Your task to perform on an android device: Clear all items from cart on amazon. Add "razer deathadder" to the cart on amazon Image 0: 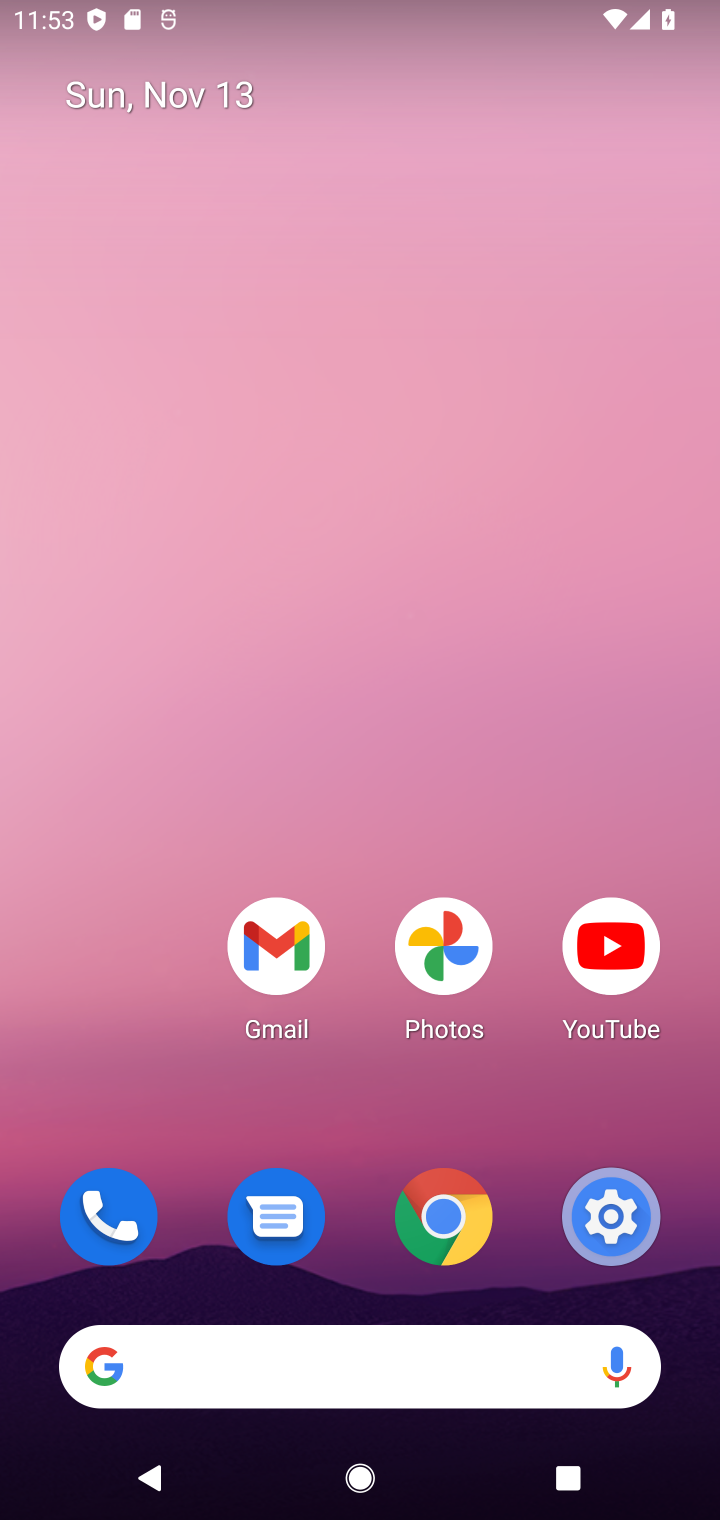
Step 0: click (450, 1244)
Your task to perform on an android device: Clear all items from cart on amazon. Add "razer deathadder" to the cart on amazon Image 1: 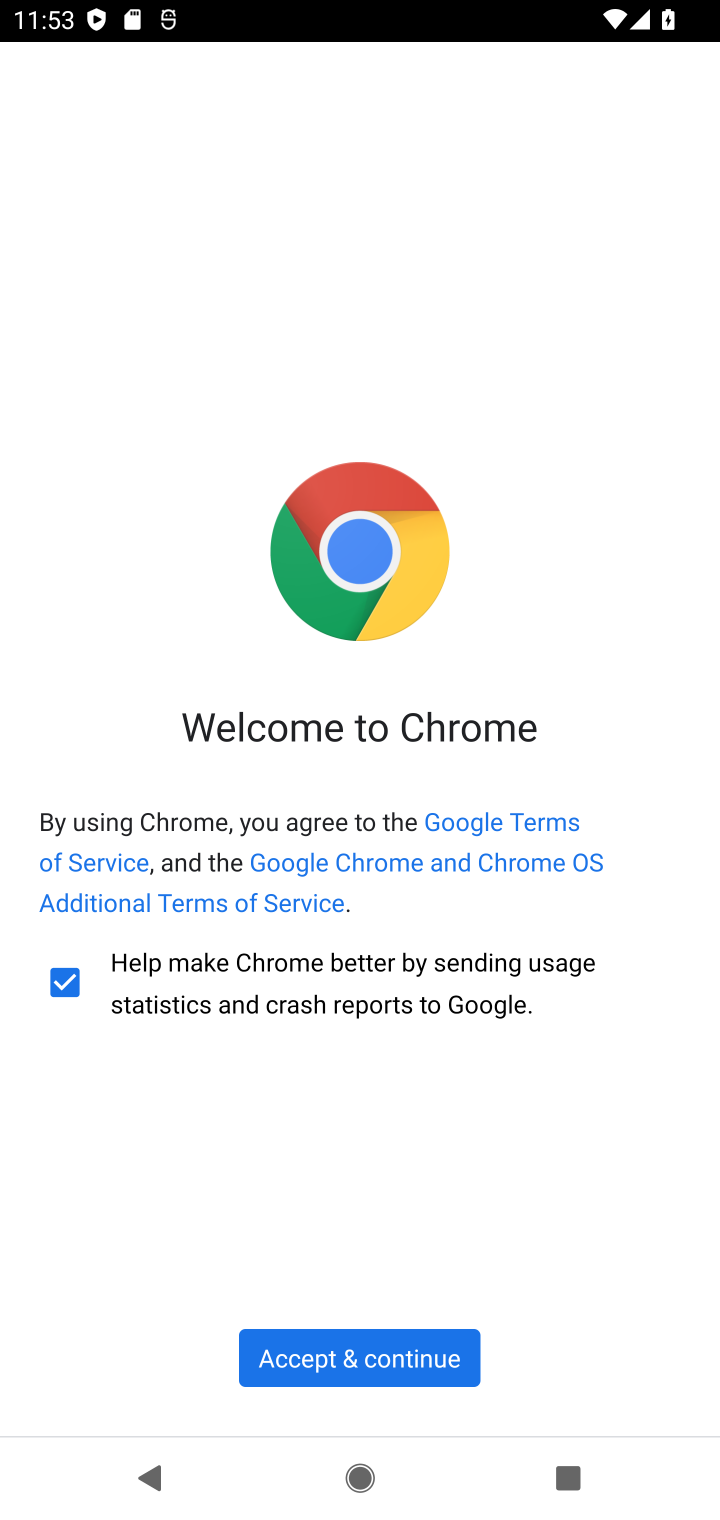
Step 1: click (373, 1356)
Your task to perform on an android device: Clear all items from cart on amazon. Add "razer deathadder" to the cart on amazon Image 2: 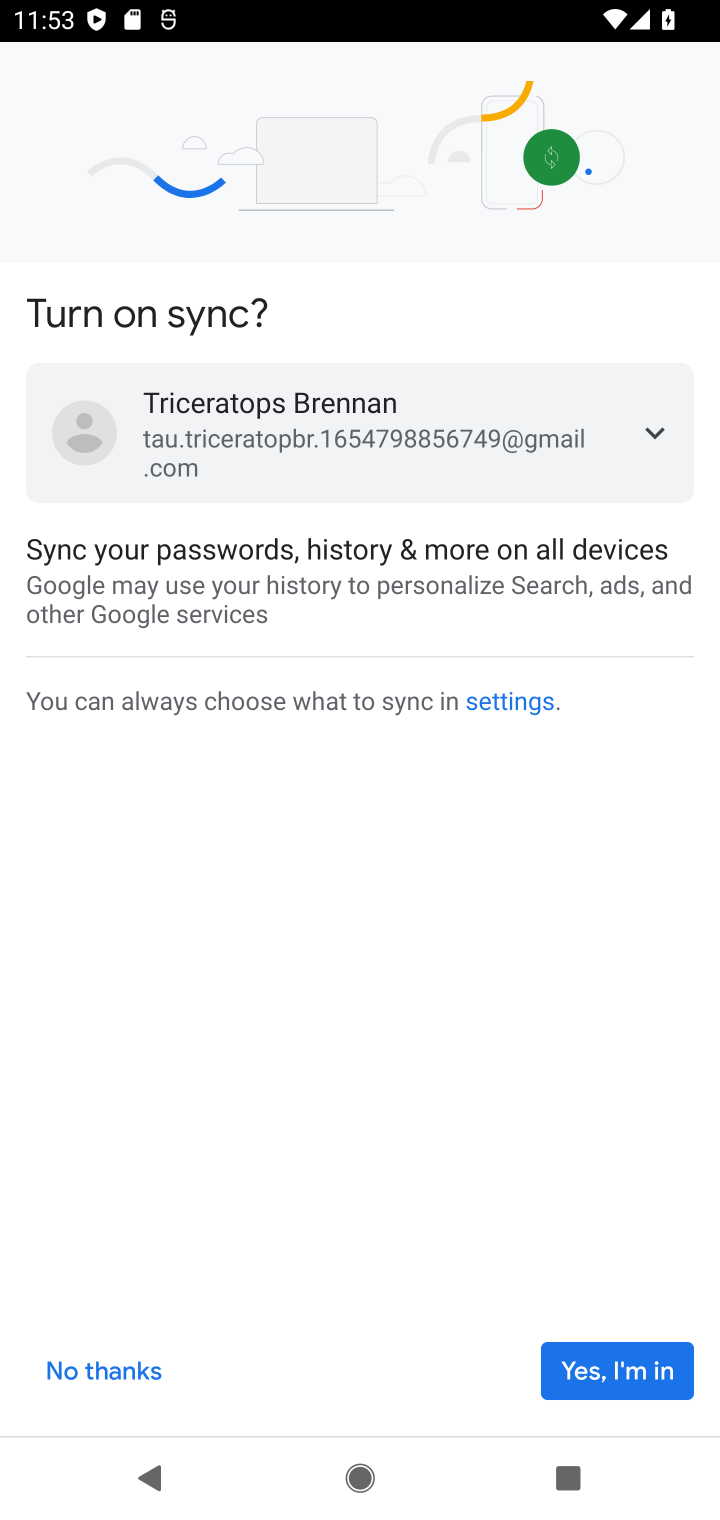
Step 2: click (609, 1361)
Your task to perform on an android device: Clear all items from cart on amazon. Add "razer deathadder" to the cart on amazon Image 3: 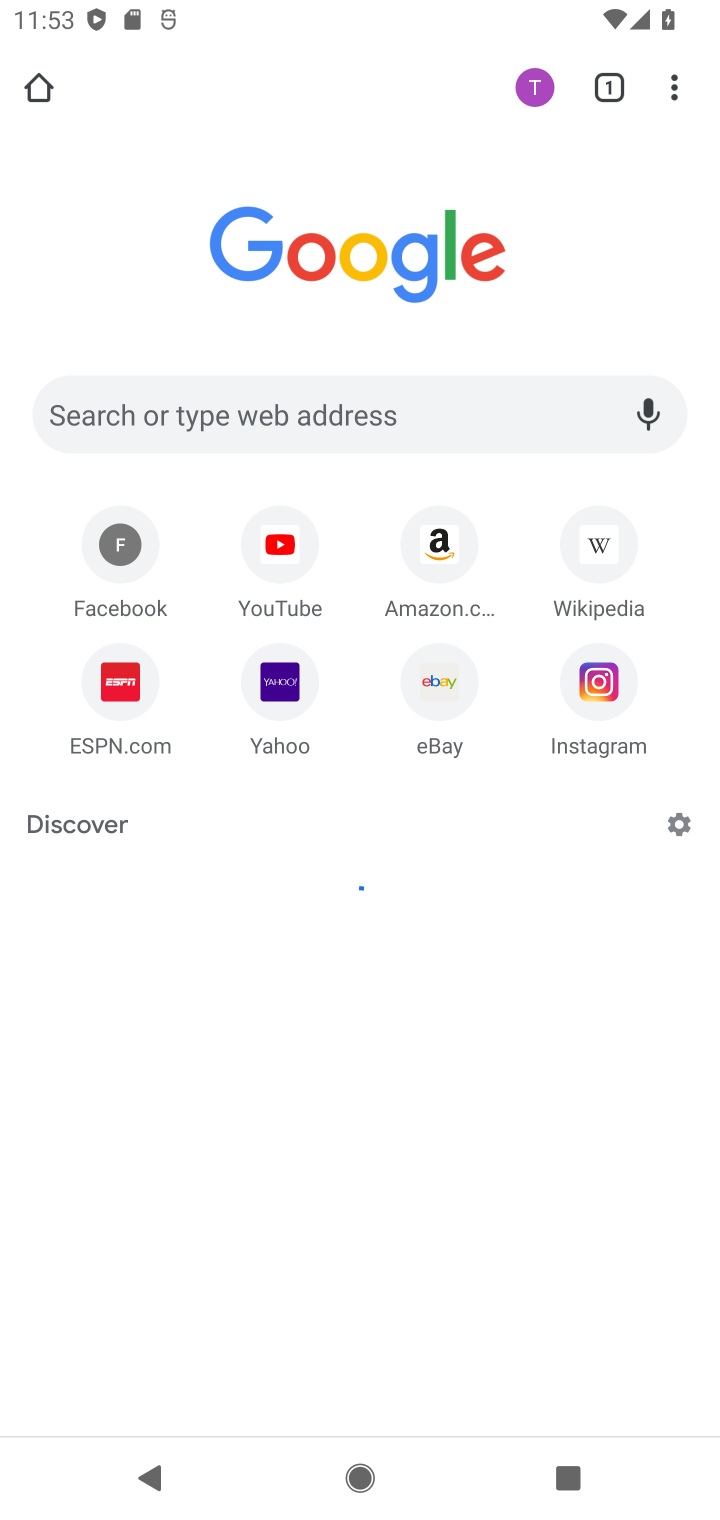
Step 3: click (444, 541)
Your task to perform on an android device: Clear all items from cart on amazon. Add "razer deathadder" to the cart on amazon Image 4: 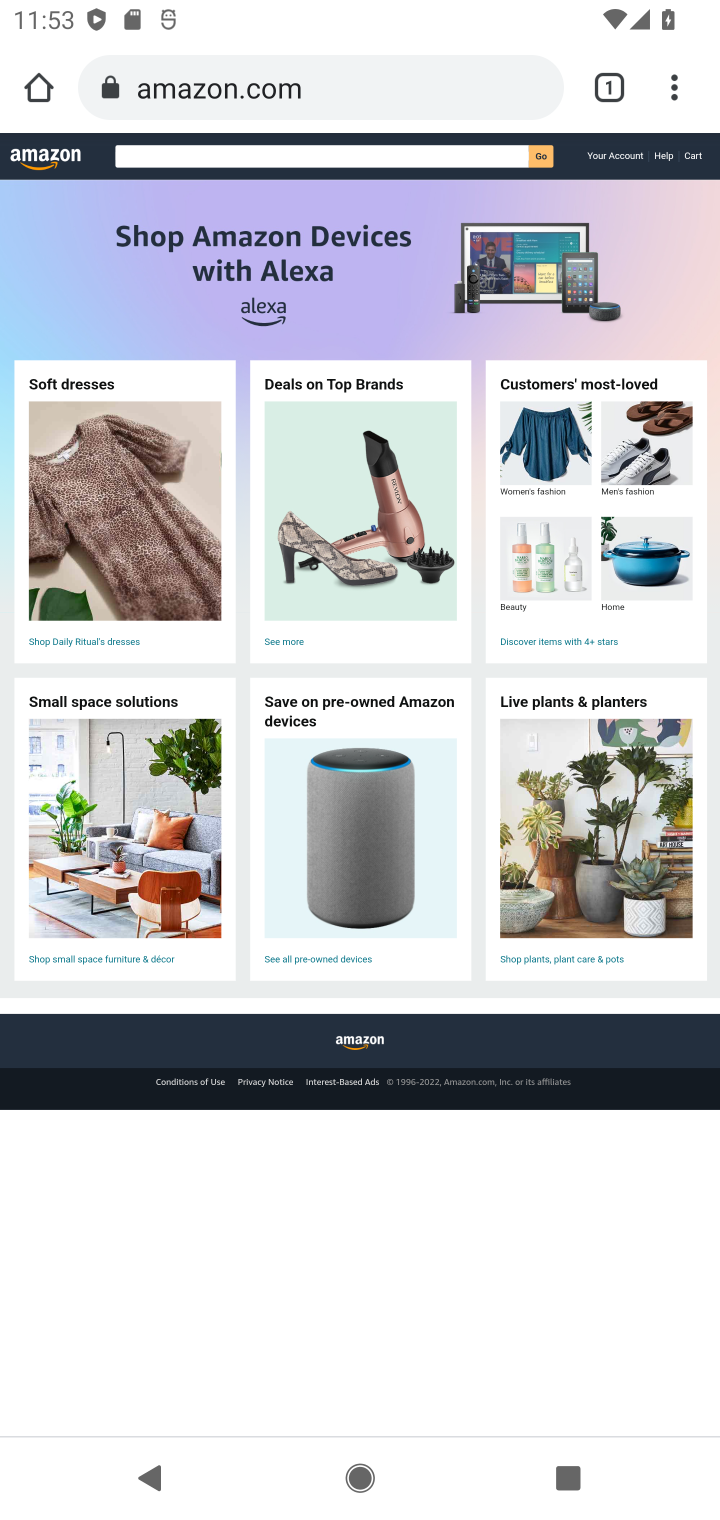
Step 4: drag from (564, 1383) to (0, 1225)
Your task to perform on an android device: Clear all items from cart on amazon. Add "razer deathadder" to the cart on amazon Image 5: 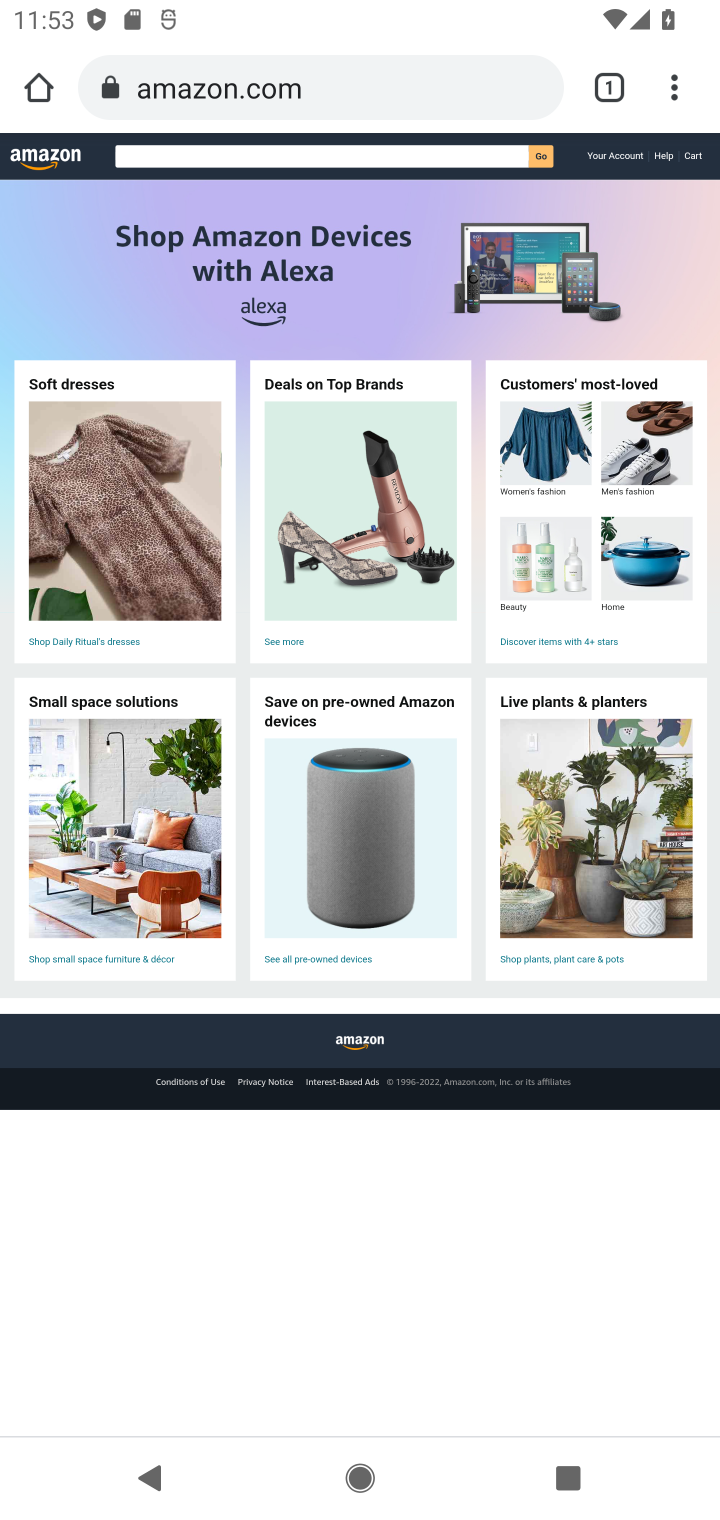
Step 5: click (609, 82)
Your task to perform on an android device: Clear all items from cart on amazon. Add "razer deathadder" to the cart on amazon Image 6: 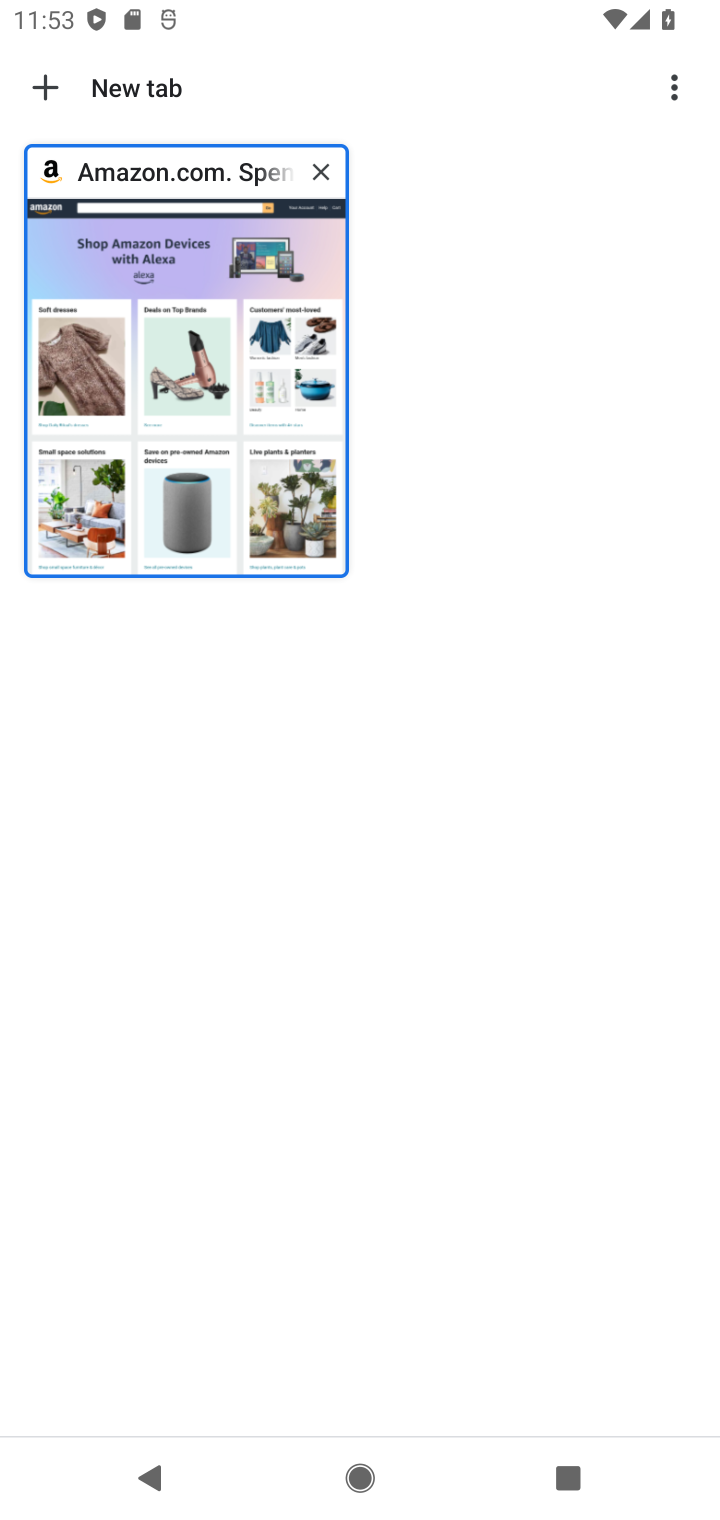
Step 6: click (320, 163)
Your task to perform on an android device: Clear all items from cart on amazon. Add "razer deathadder" to the cart on amazon Image 7: 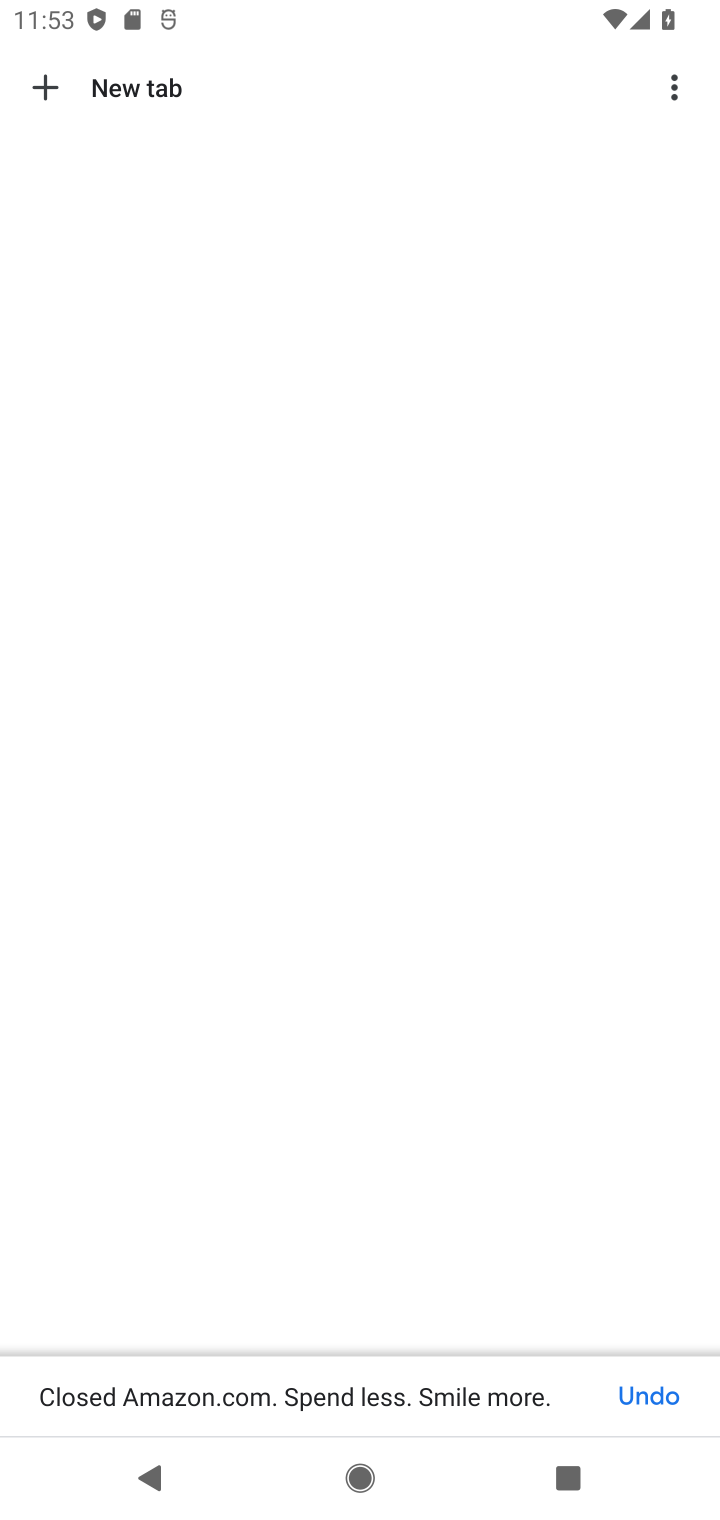
Step 7: click (43, 83)
Your task to perform on an android device: Clear all items from cart on amazon. Add "razer deathadder" to the cart on amazon Image 8: 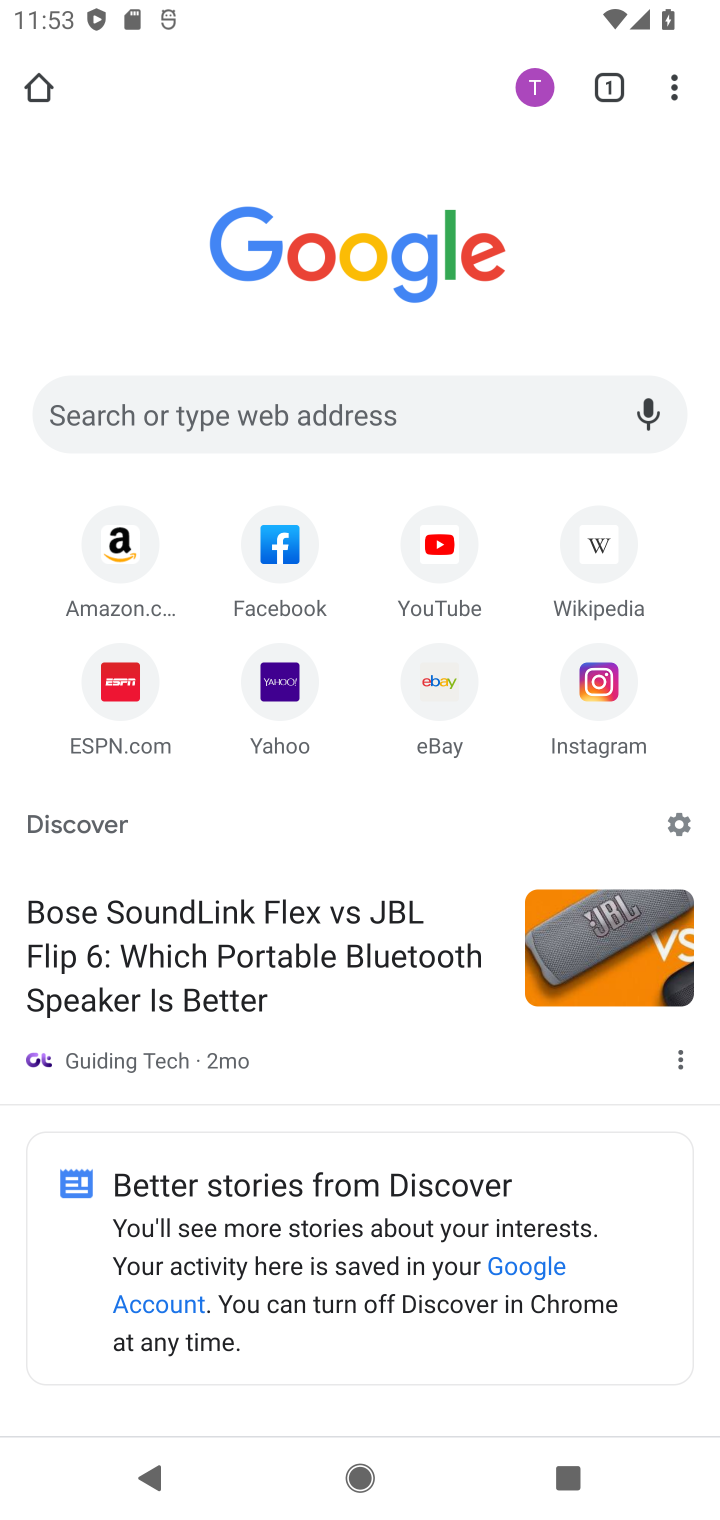
Step 8: click (357, 410)
Your task to perform on an android device: Clear all items from cart on amazon. Add "razer deathadder" to the cart on amazon Image 9: 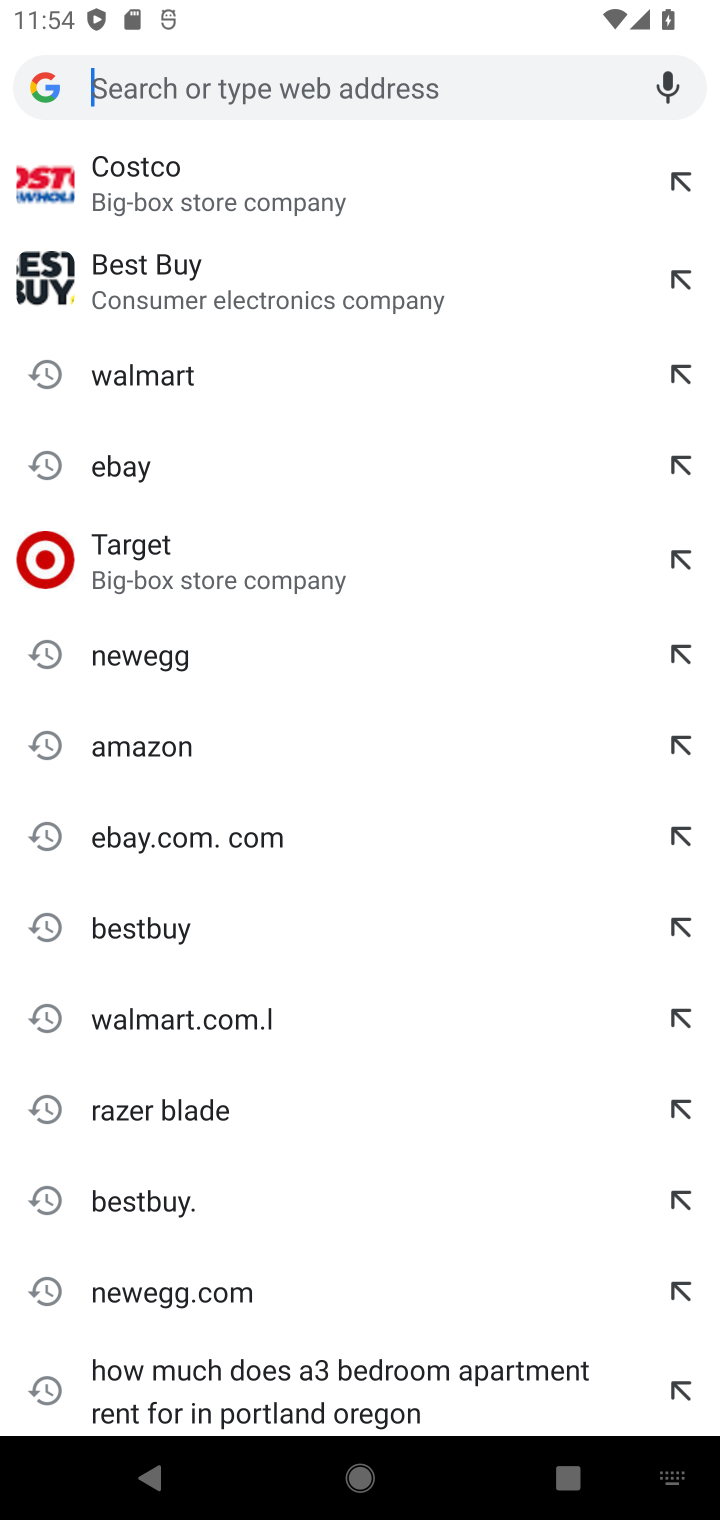
Step 9: click (147, 742)
Your task to perform on an android device: Clear all items from cart on amazon. Add "razer deathadder" to the cart on amazon Image 10: 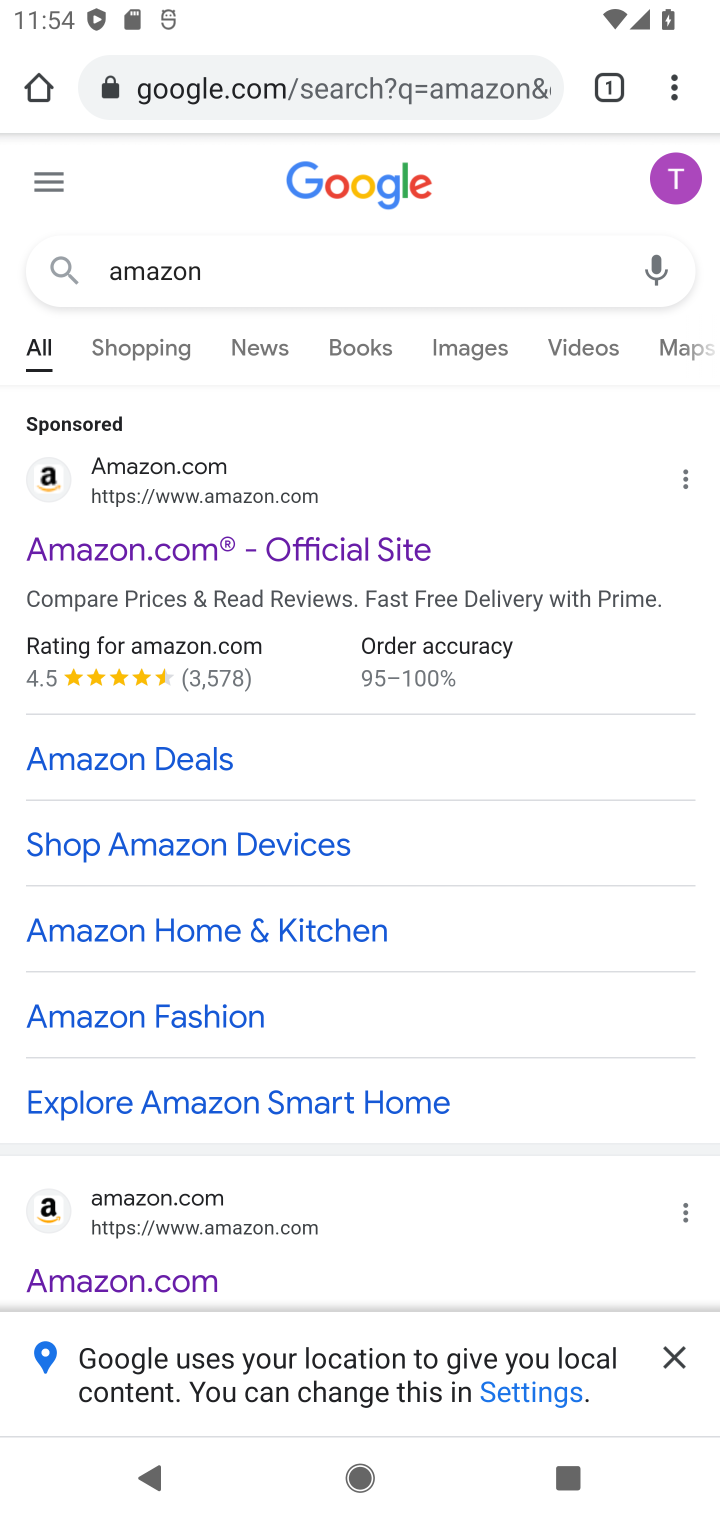
Step 10: click (677, 1351)
Your task to perform on an android device: Clear all items from cart on amazon. Add "razer deathadder" to the cart on amazon Image 11: 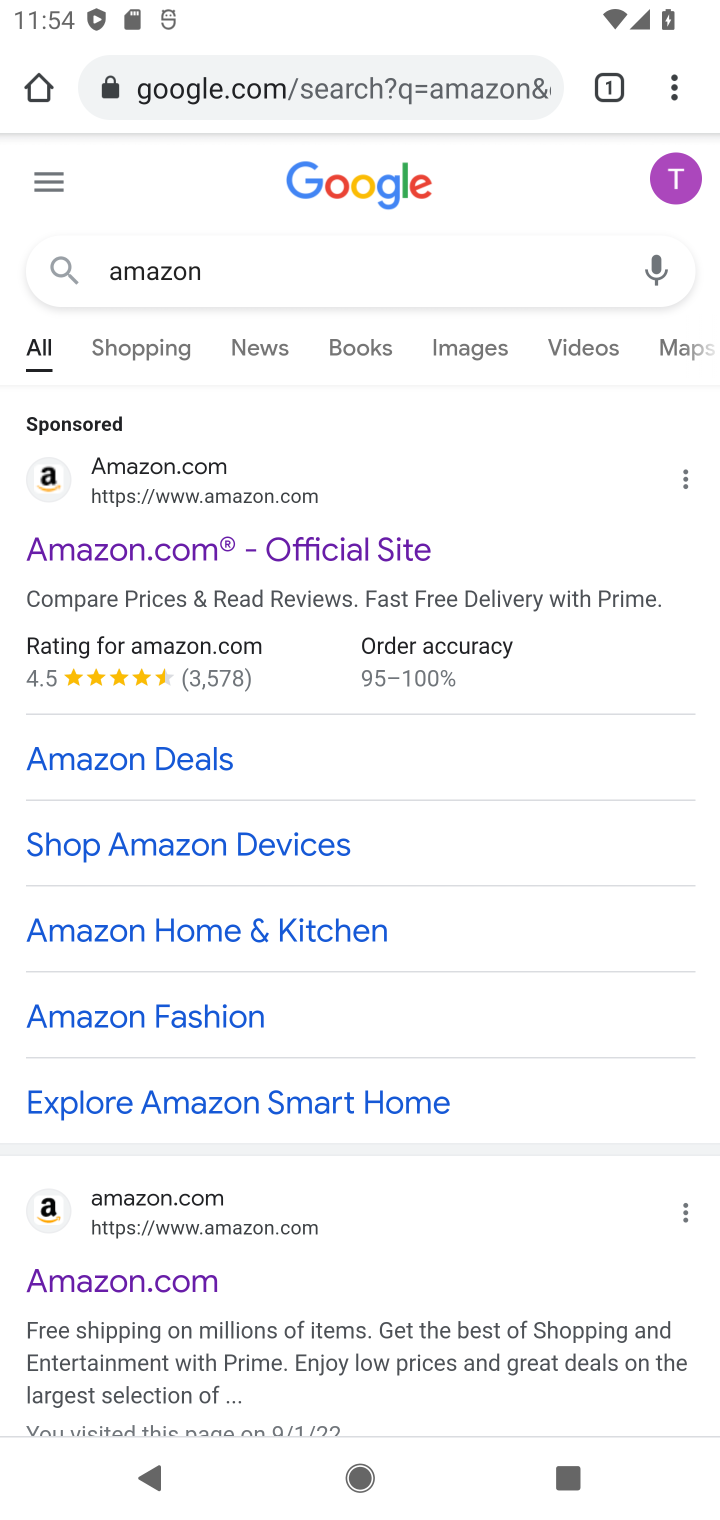
Step 11: click (191, 1274)
Your task to perform on an android device: Clear all items from cart on amazon. Add "razer deathadder" to the cart on amazon Image 12: 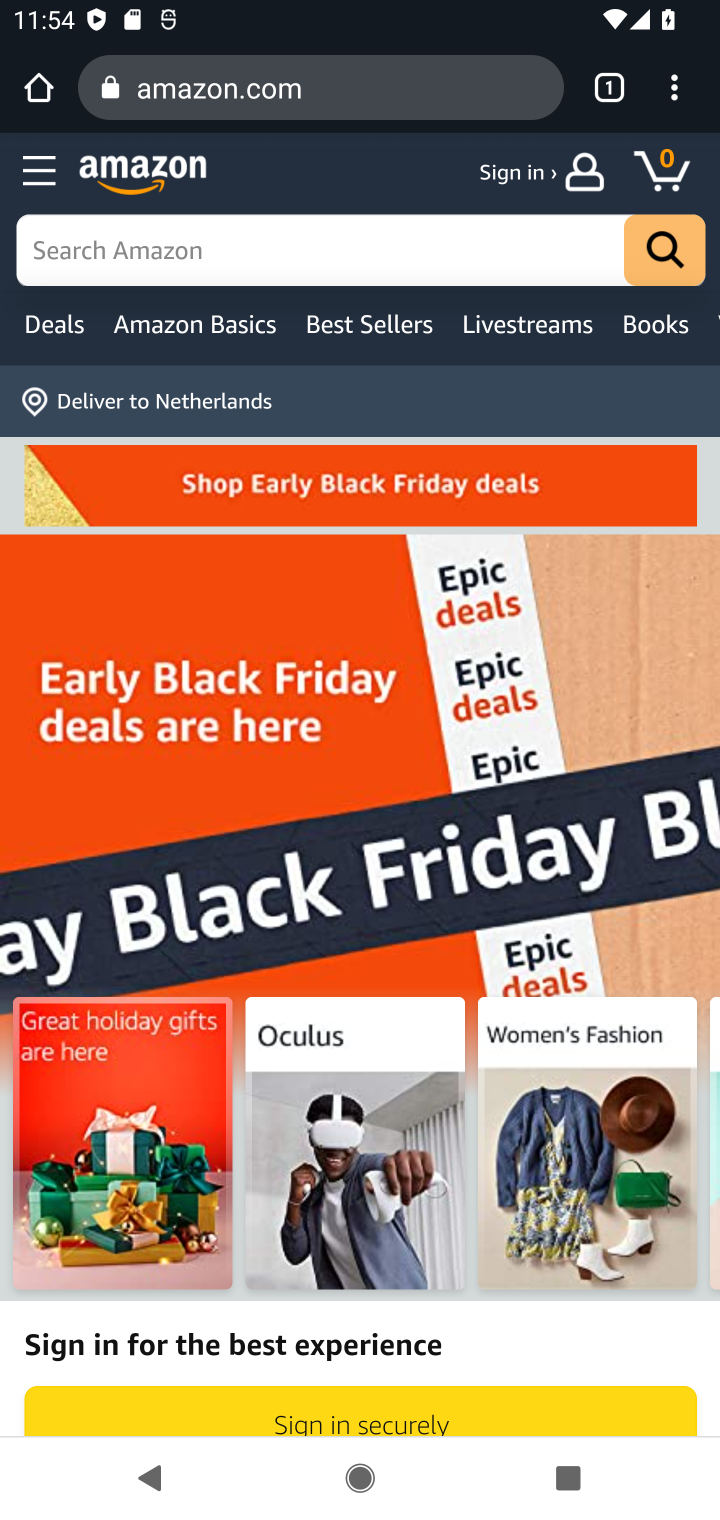
Step 12: click (207, 257)
Your task to perform on an android device: Clear all items from cart on amazon. Add "razer deathadder" to the cart on amazon Image 13: 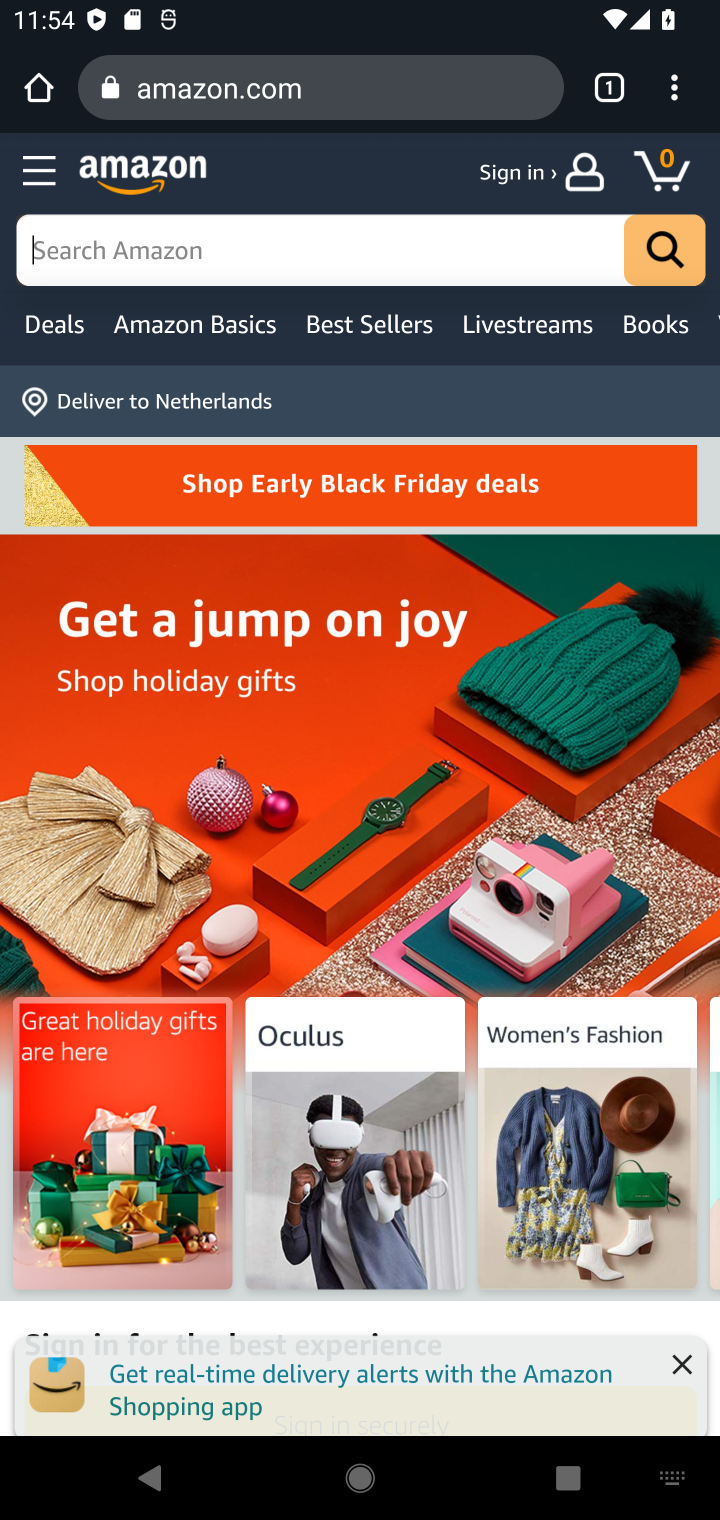
Step 13: type "razer deathadder"
Your task to perform on an android device: Clear all items from cart on amazon. Add "razer deathadder" to the cart on amazon Image 14: 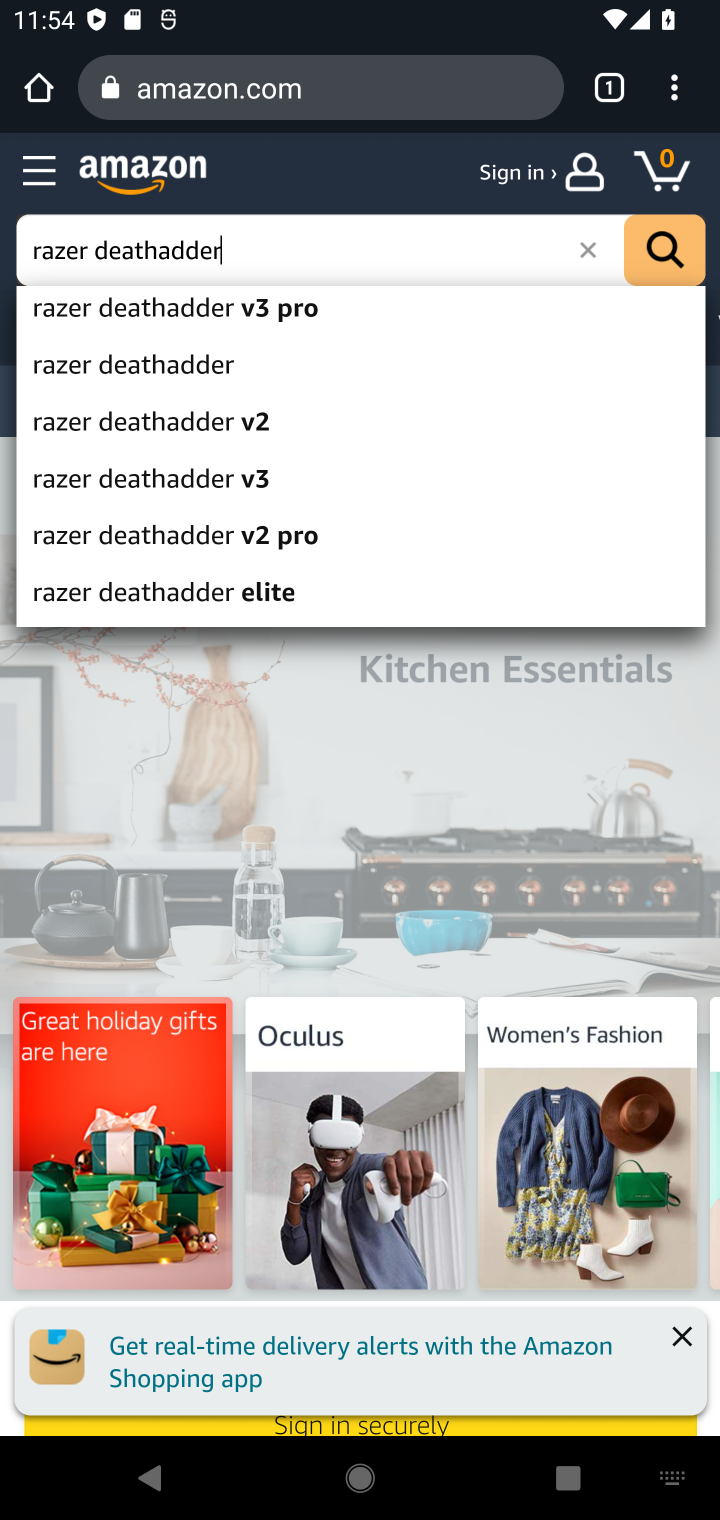
Step 14: click (176, 360)
Your task to perform on an android device: Clear all items from cart on amazon. Add "razer deathadder" to the cart on amazon Image 15: 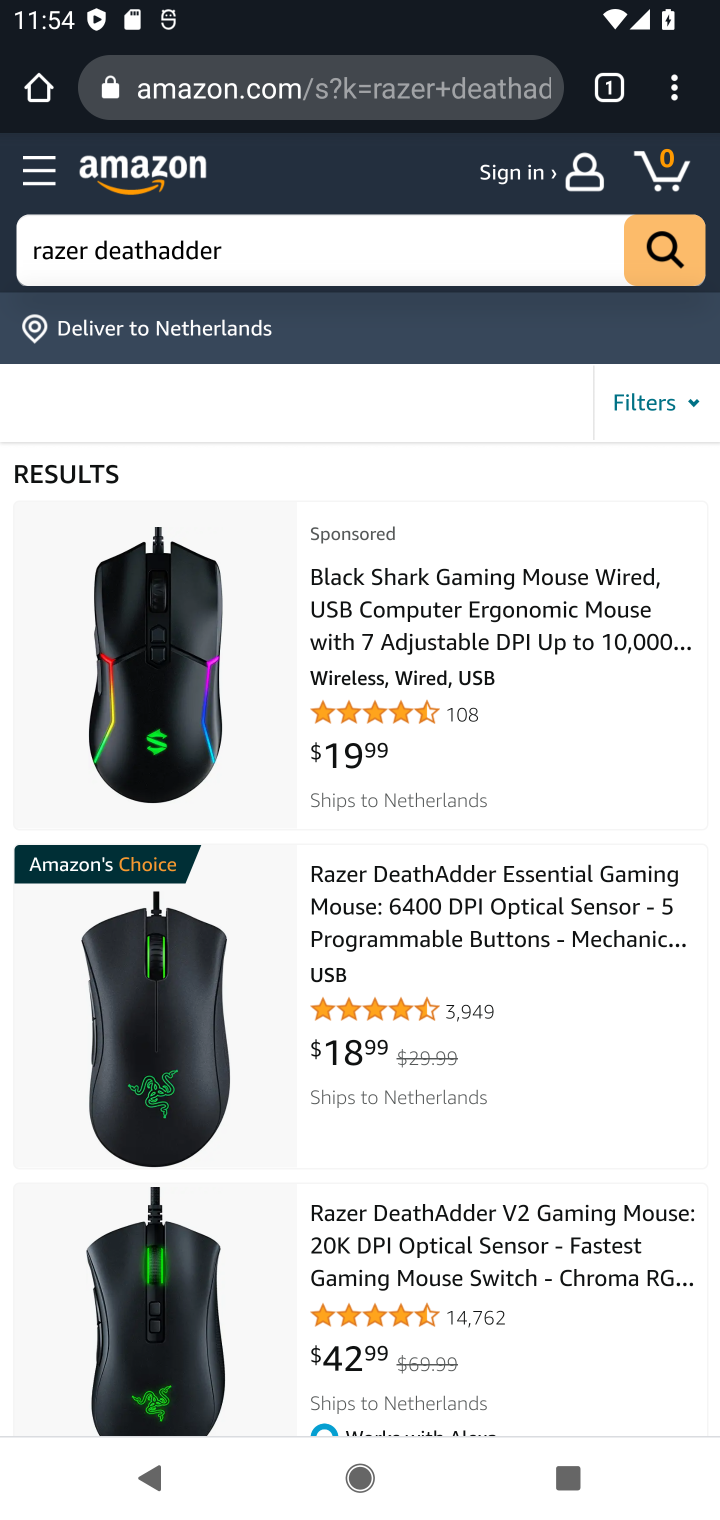
Step 15: click (502, 891)
Your task to perform on an android device: Clear all items from cart on amazon. Add "razer deathadder" to the cart on amazon Image 16: 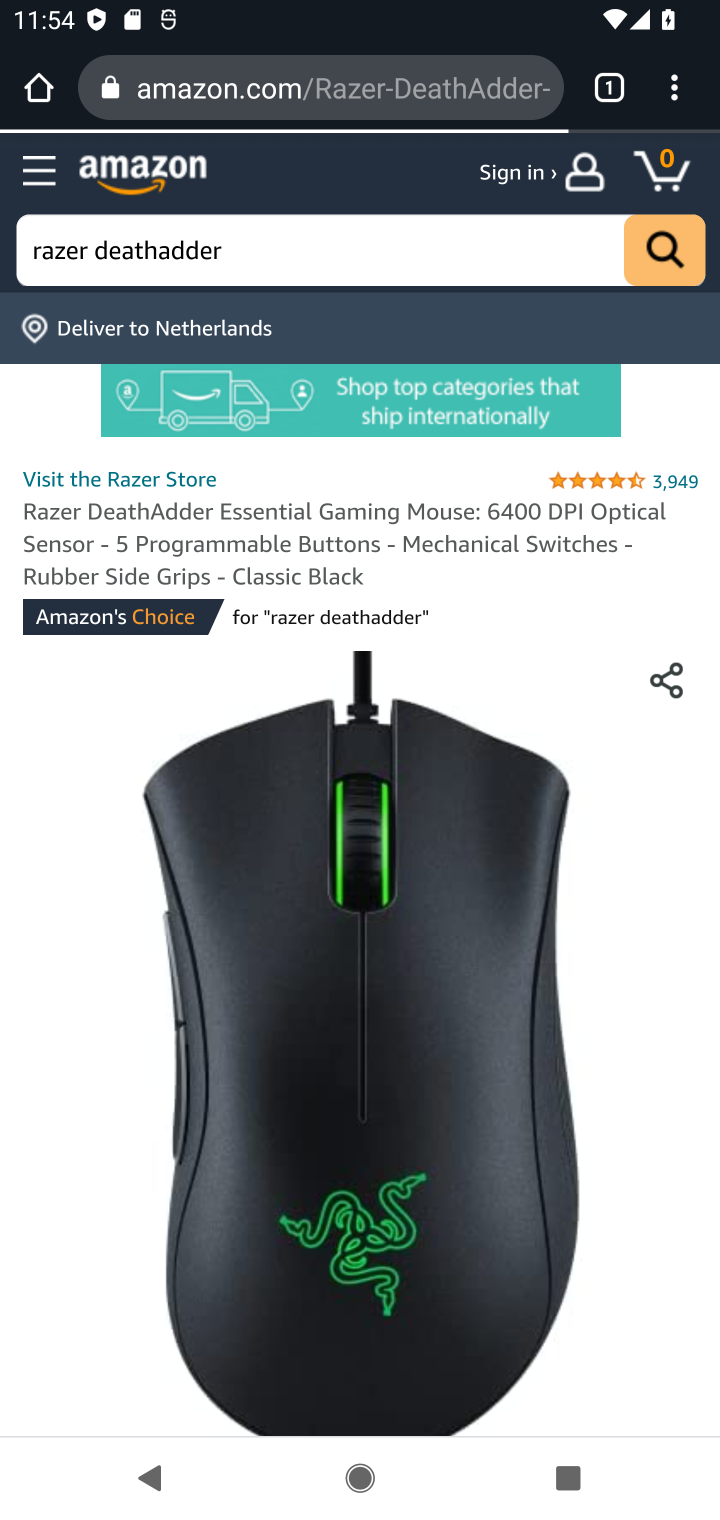
Step 16: drag from (612, 1391) to (492, 482)
Your task to perform on an android device: Clear all items from cart on amazon. Add "razer deathadder" to the cart on amazon Image 17: 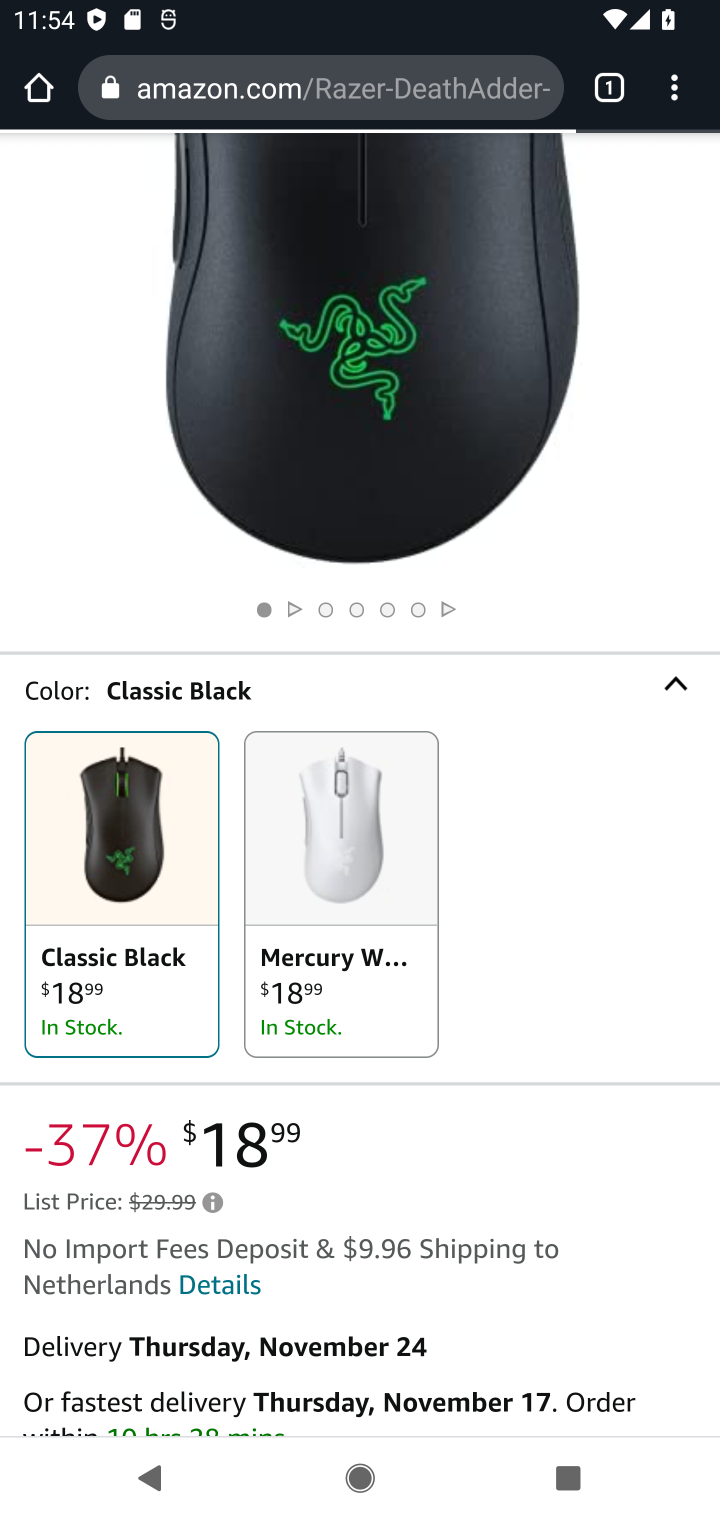
Step 17: drag from (422, 1246) to (240, 525)
Your task to perform on an android device: Clear all items from cart on amazon. Add "razer deathadder" to the cart on amazon Image 18: 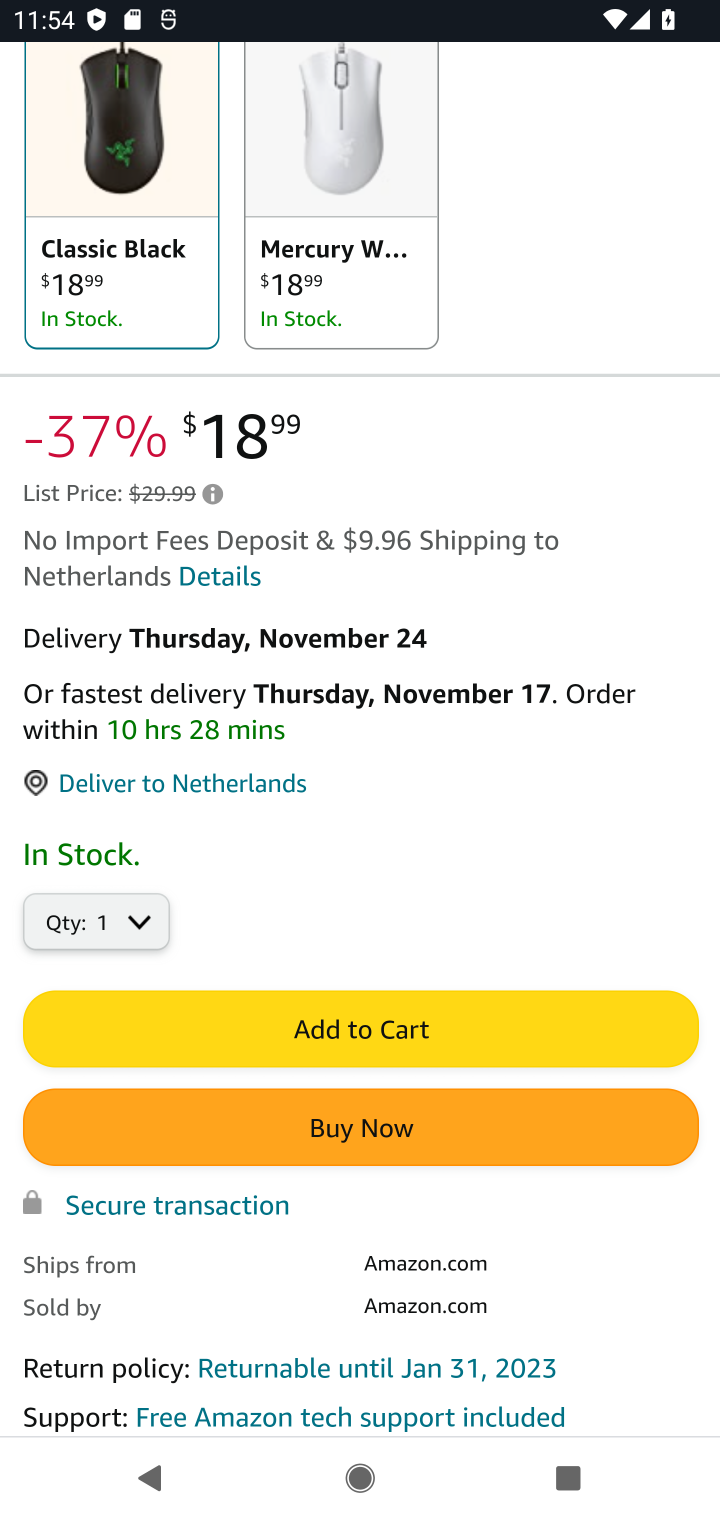
Step 18: click (397, 1022)
Your task to perform on an android device: Clear all items from cart on amazon. Add "razer deathadder" to the cart on amazon Image 19: 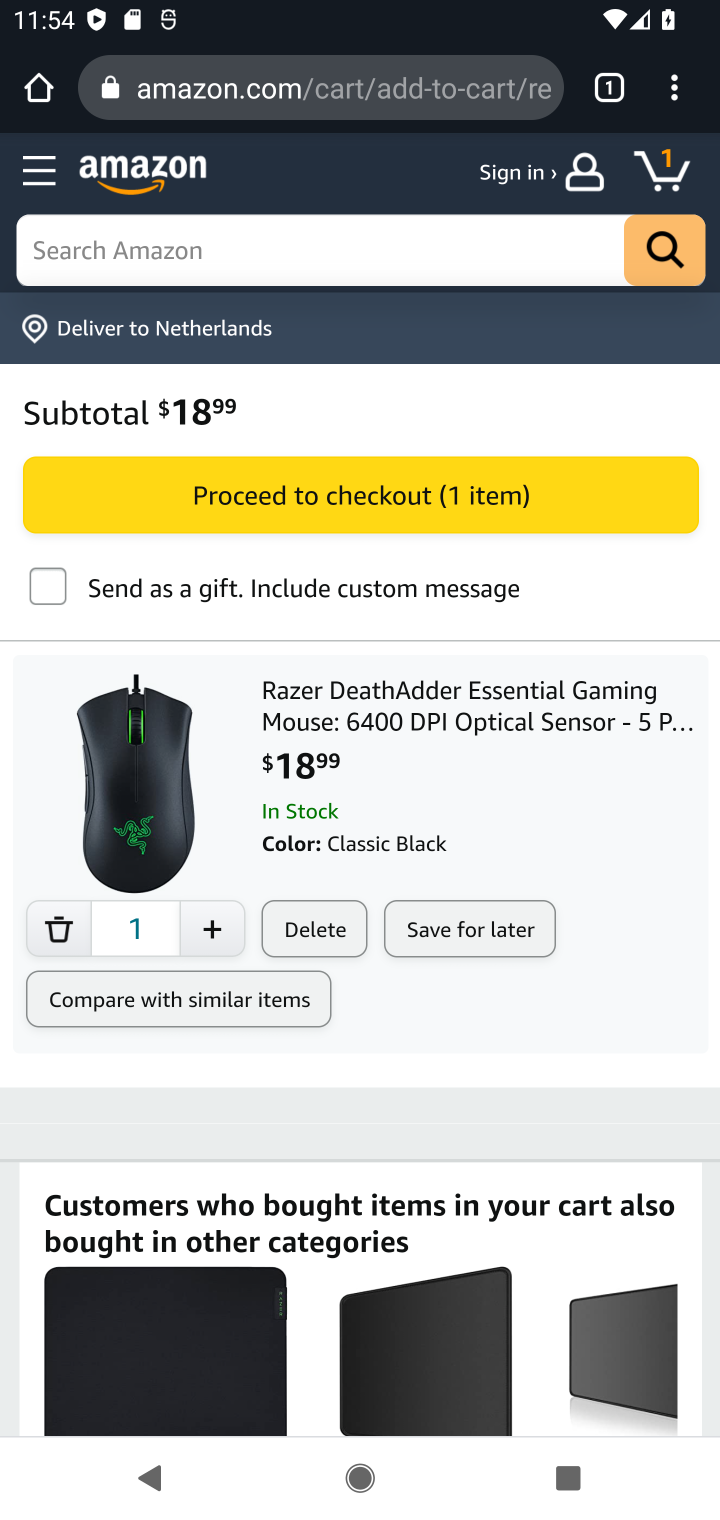
Step 19: task complete